Your task to perform on an android device: search for starred emails in the gmail app Image 0: 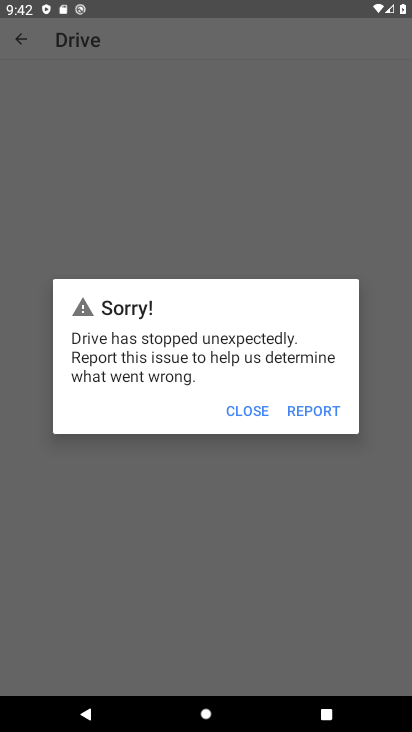
Step 0: click (261, 415)
Your task to perform on an android device: search for starred emails in the gmail app Image 1: 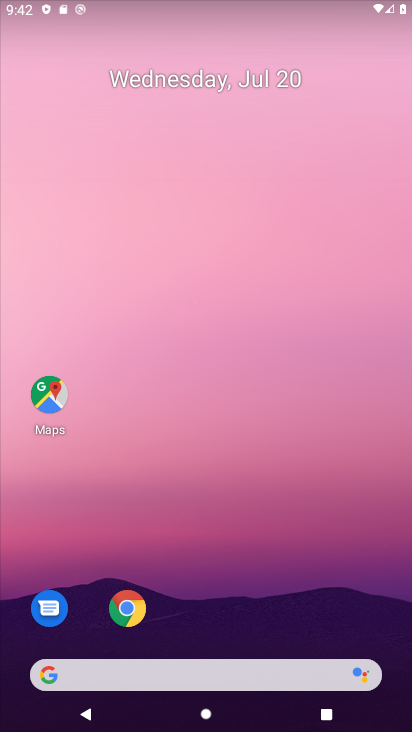
Step 1: drag from (277, 555) to (252, 313)
Your task to perform on an android device: search for starred emails in the gmail app Image 2: 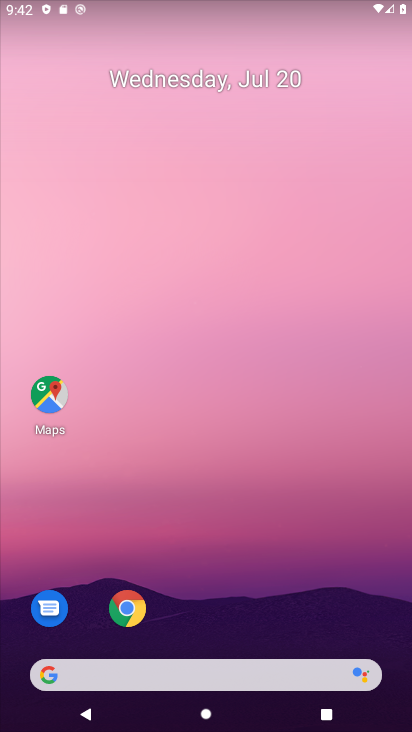
Step 2: drag from (235, 519) to (230, 196)
Your task to perform on an android device: search for starred emails in the gmail app Image 3: 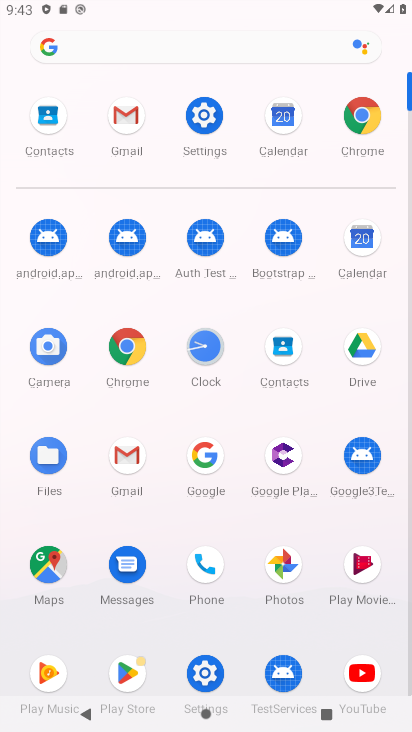
Step 3: click (130, 448)
Your task to perform on an android device: search for starred emails in the gmail app Image 4: 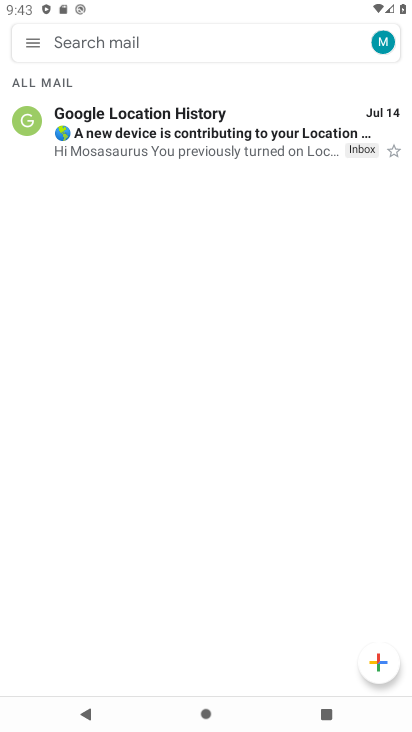
Step 4: click (33, 32)
Your task to perform on an android device: search for starred emails in the gmail app Image 5: 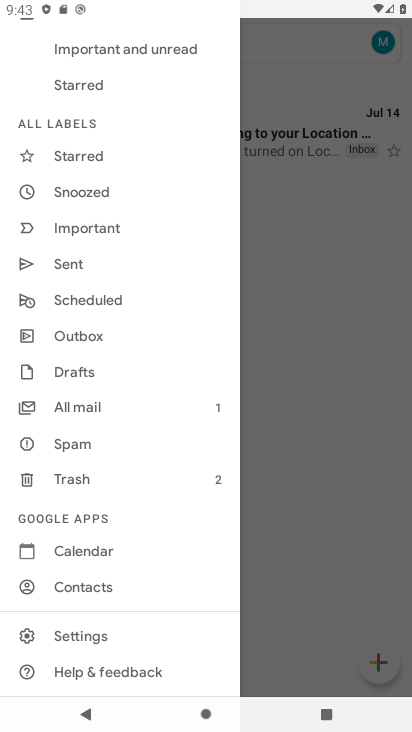
Step 5: click (92, 162)
Your task to perform on an android device: search for starred emails in the gmail app Image 6: 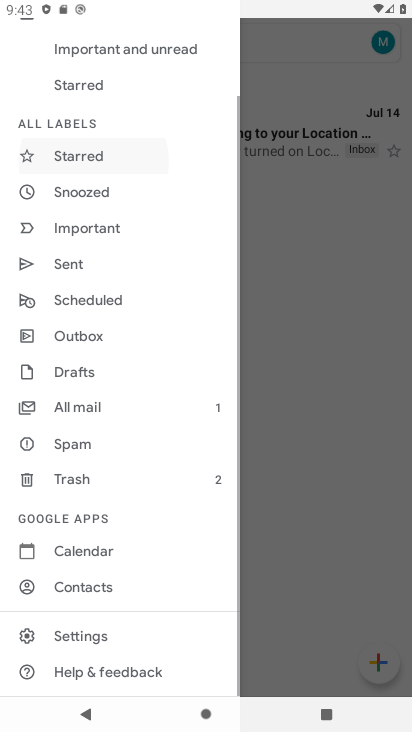
Step 6: click (92, 159)
Your task to perform on an android device: search for starred emails in the gmail app Image 7: 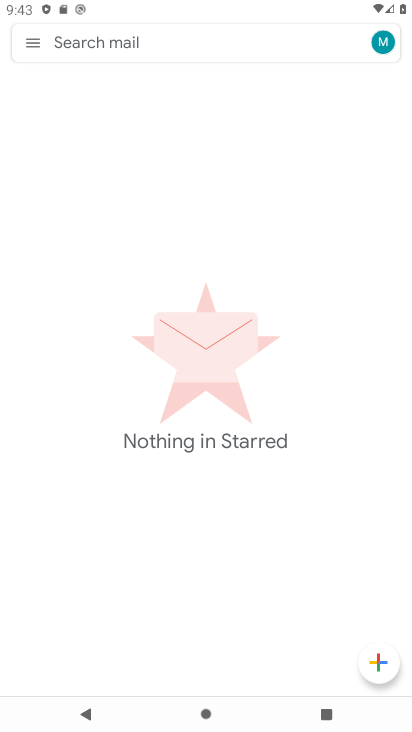
Step 7: task complete